Your task to perform on an android device: turn on sleep mode Image 0: 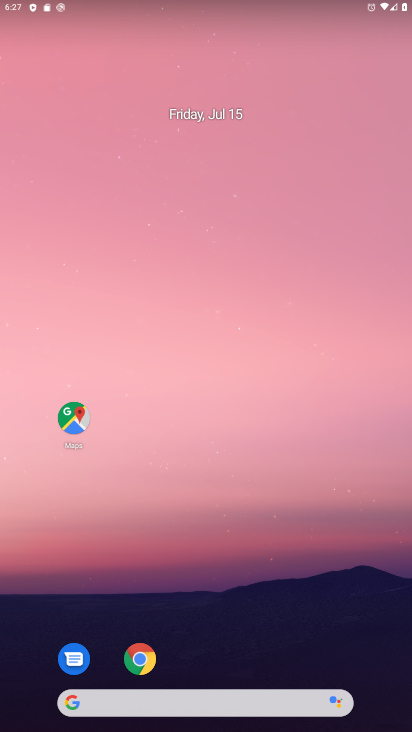
Step 0: drag from (372, 625) to (345, 134)
Your task to perform on an android device: turn on sleep mode Image 1: 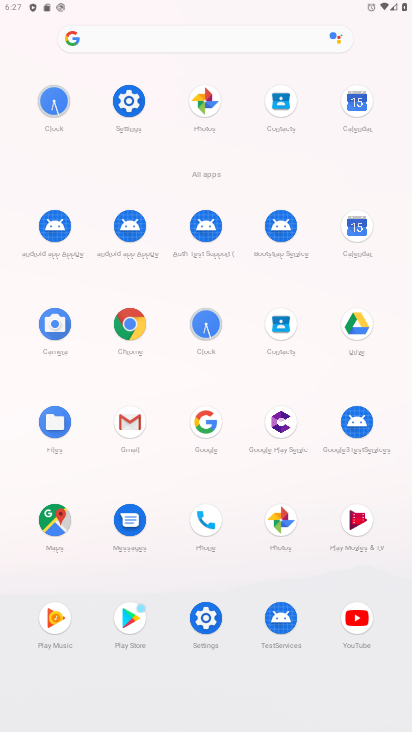
Step 1: click (204, 622)
Your task to perform on an android device: turn on sleep mode Image 2: 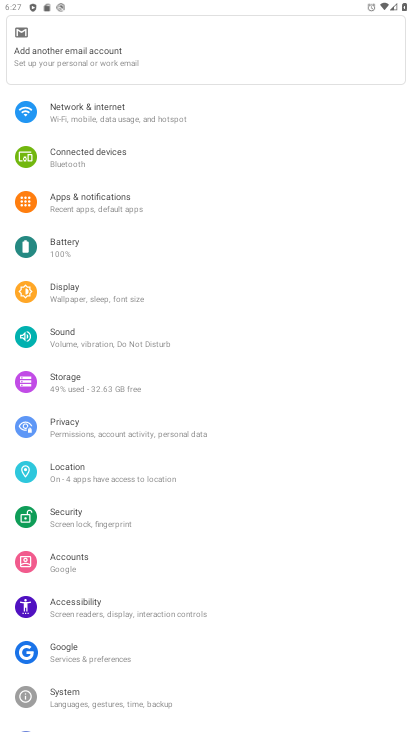
Step 2: click (77, 281)
Your task to perform on an android device: turn on sleep mode Image 3: 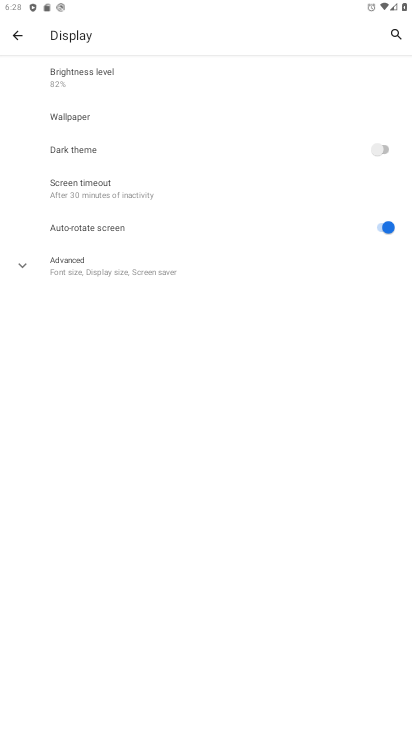
Step 3: click (21, 262)
Your task to perform on an android device: turn on sleep mode Image 4: 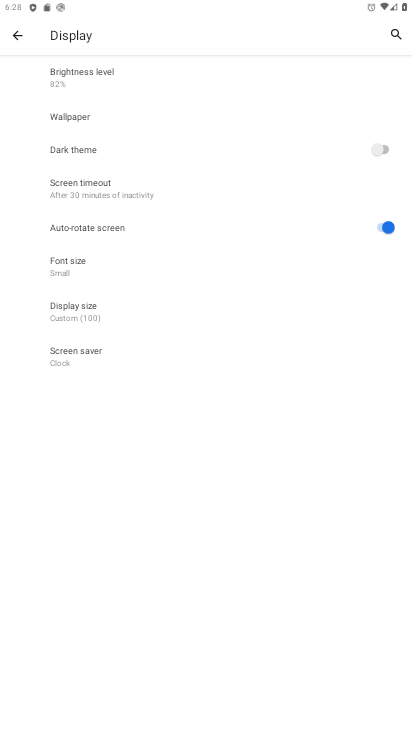
Step 4: task complete